Your task to perform on an android device: Open the calendar and show me this week's events Image 0: 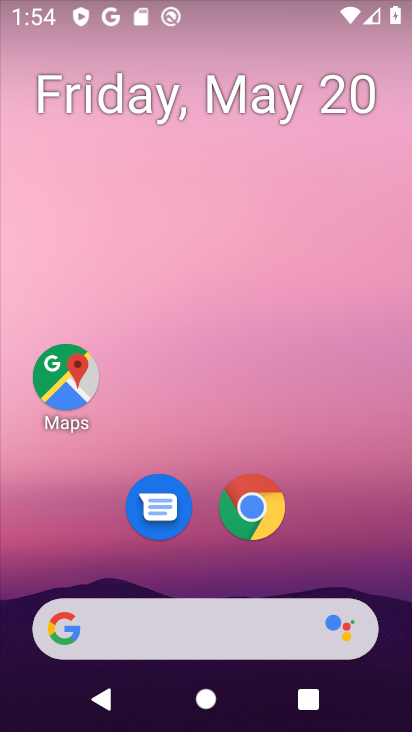
Step 0: drag from (338, 510) to (263, 5)
Your task to perform on an android device: Open the calendar and show me this week's events Image 1: 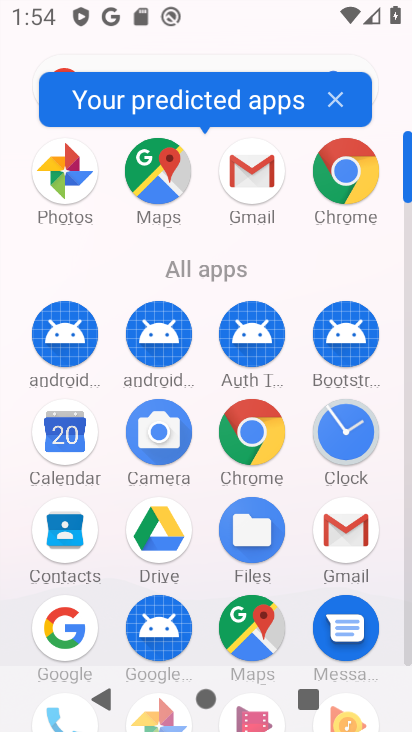
Step 1: click (56, 441)
Your task to perform on an android device: Open the calendar and show me this week's events Image 2: 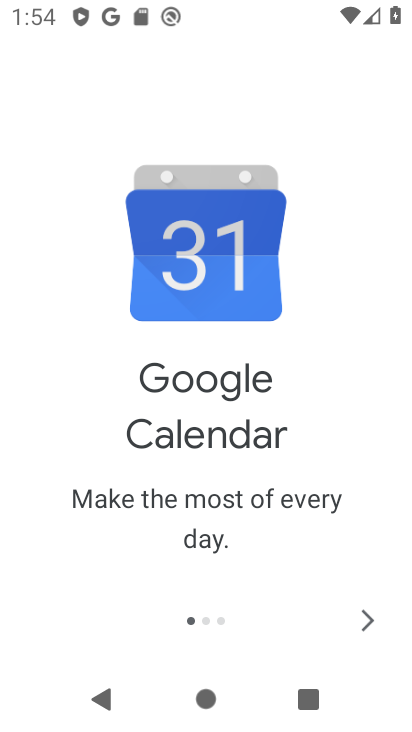
Step 2: click (366, 615)
Your task to perform on an android device: Open the calendar and show me this week's events Image 3: 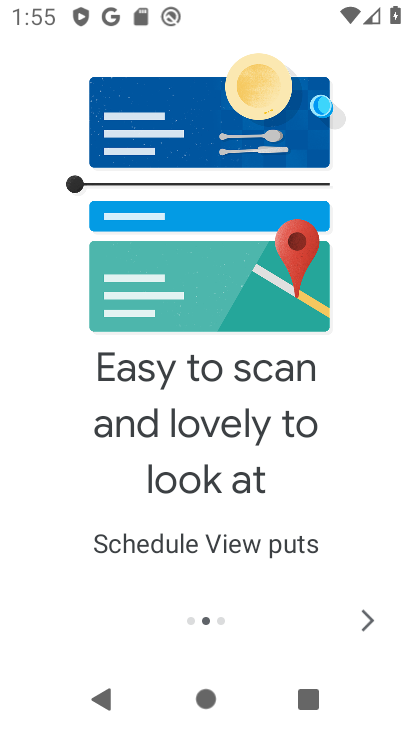
Step 3: click (356, 618)
Your task to perform on an android device: Open the calendar and show me this week's events Image 4: 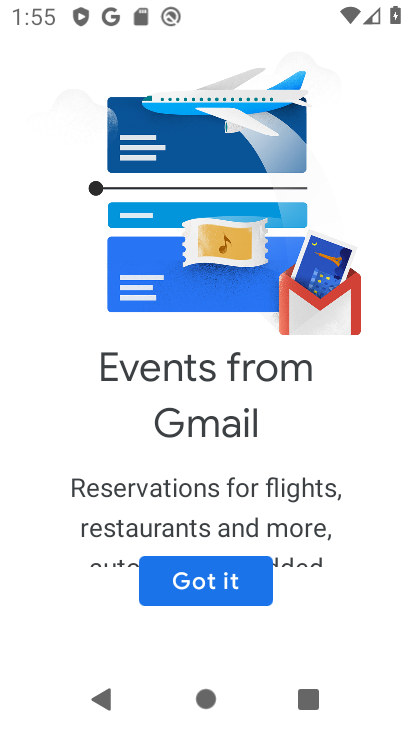
Step 4: click (366, 622)
Your task to perform on an android device: Open the calendar and show me this week's events Image 5: 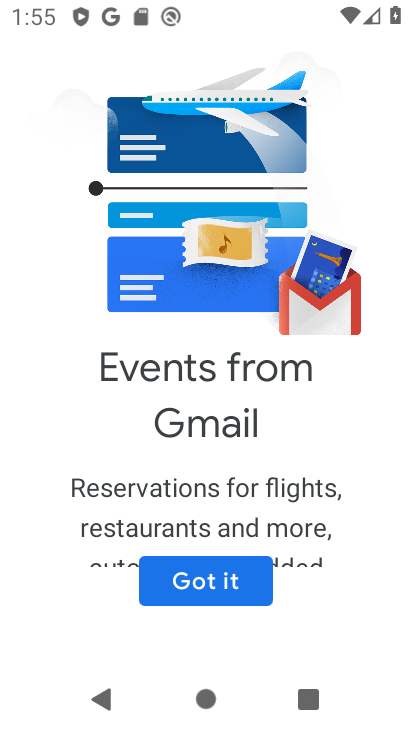
Step 5: click (253, 583)
Your task to perform on an android device: Open the calendar and show me this week's events Image 6: 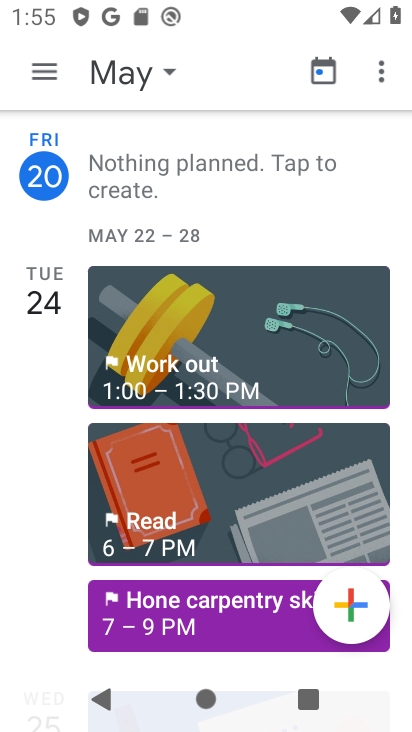
Step 6: click (113, 91)
Your task to perform on an android device: Open the calendar and show me this week's events Image 7: 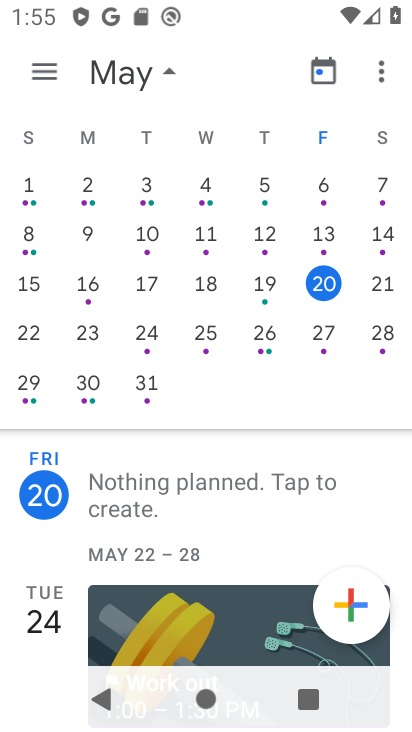
Step 7: click (328, 278)
Your task to perform on an android device: Open the calendar and show me this week's events Image 8: 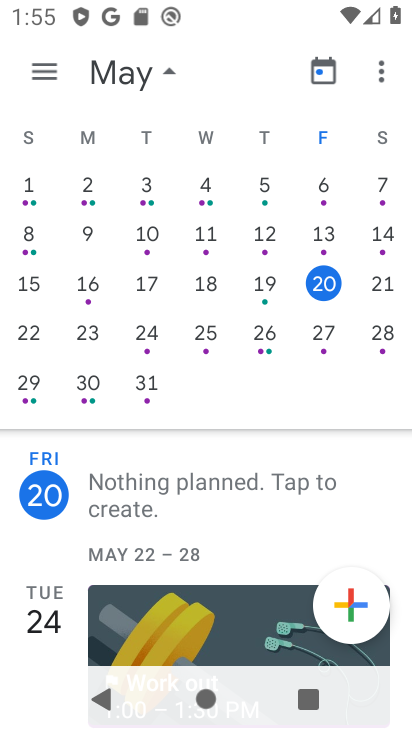
Step 8: task complete